Your task to perform on an android device: Turn on the flashlight Image 0: 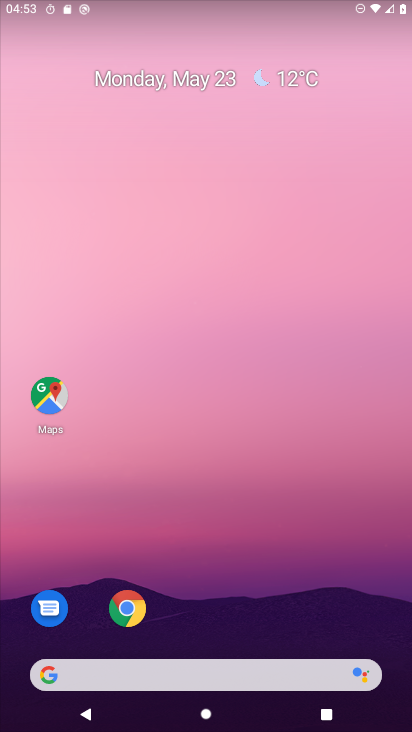
Step 0: task impossible